Your task to perform on an android device: What's a good restaurant in Boston? Image 0: 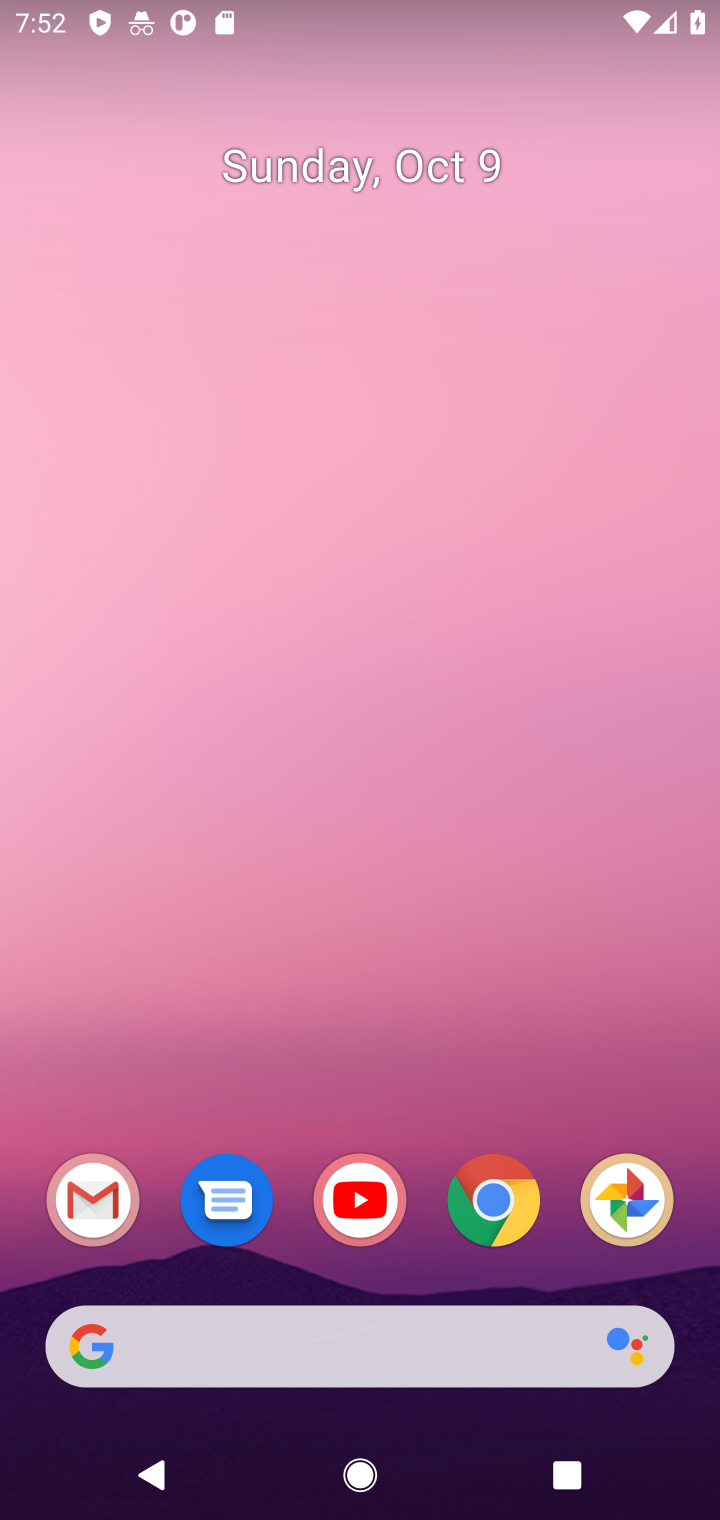
Step 0: click (486, 1216)
Your task to perform on an android device: What's a good restaurant in Boston? Image 1: 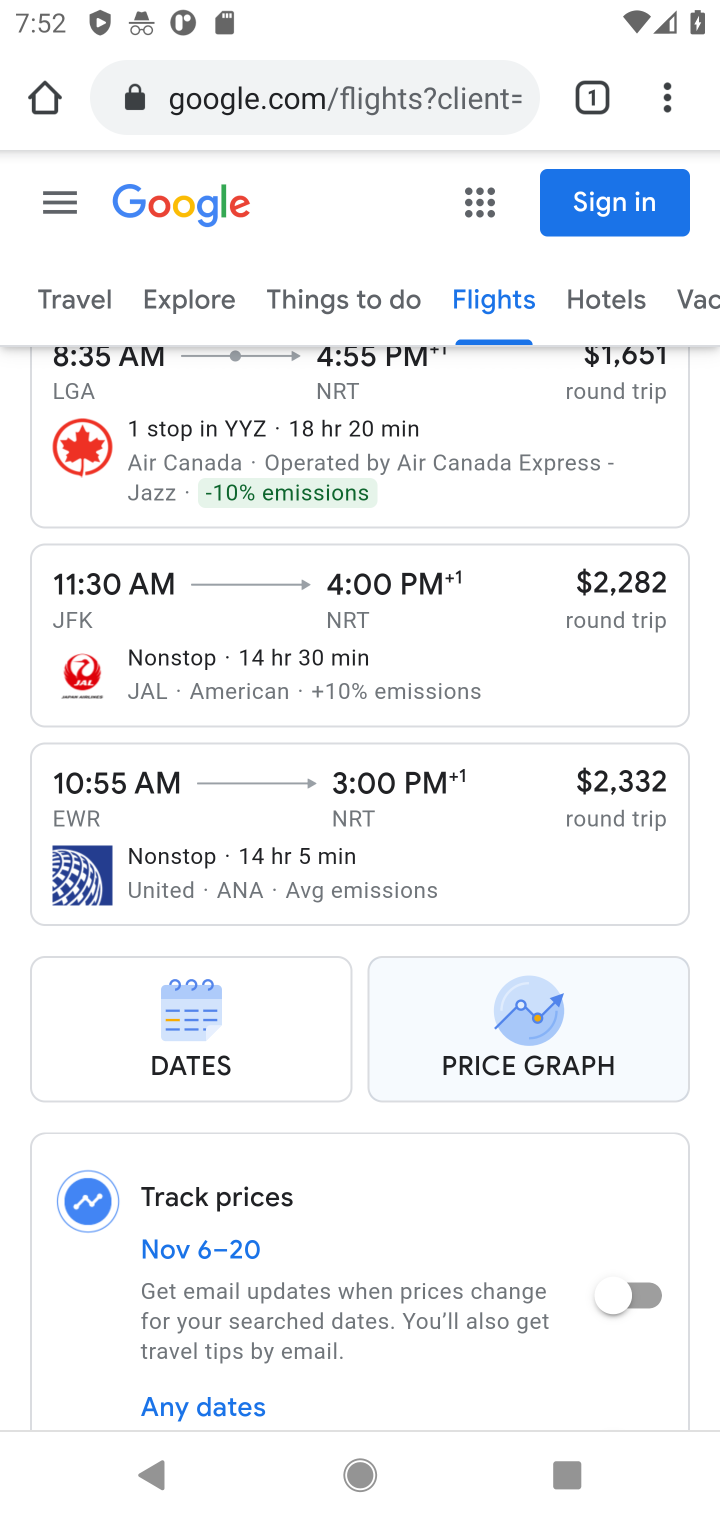
Step 1: click (373, 98)
Your task to perform on an android device: What's a good restaurant in Boston? Image 2: 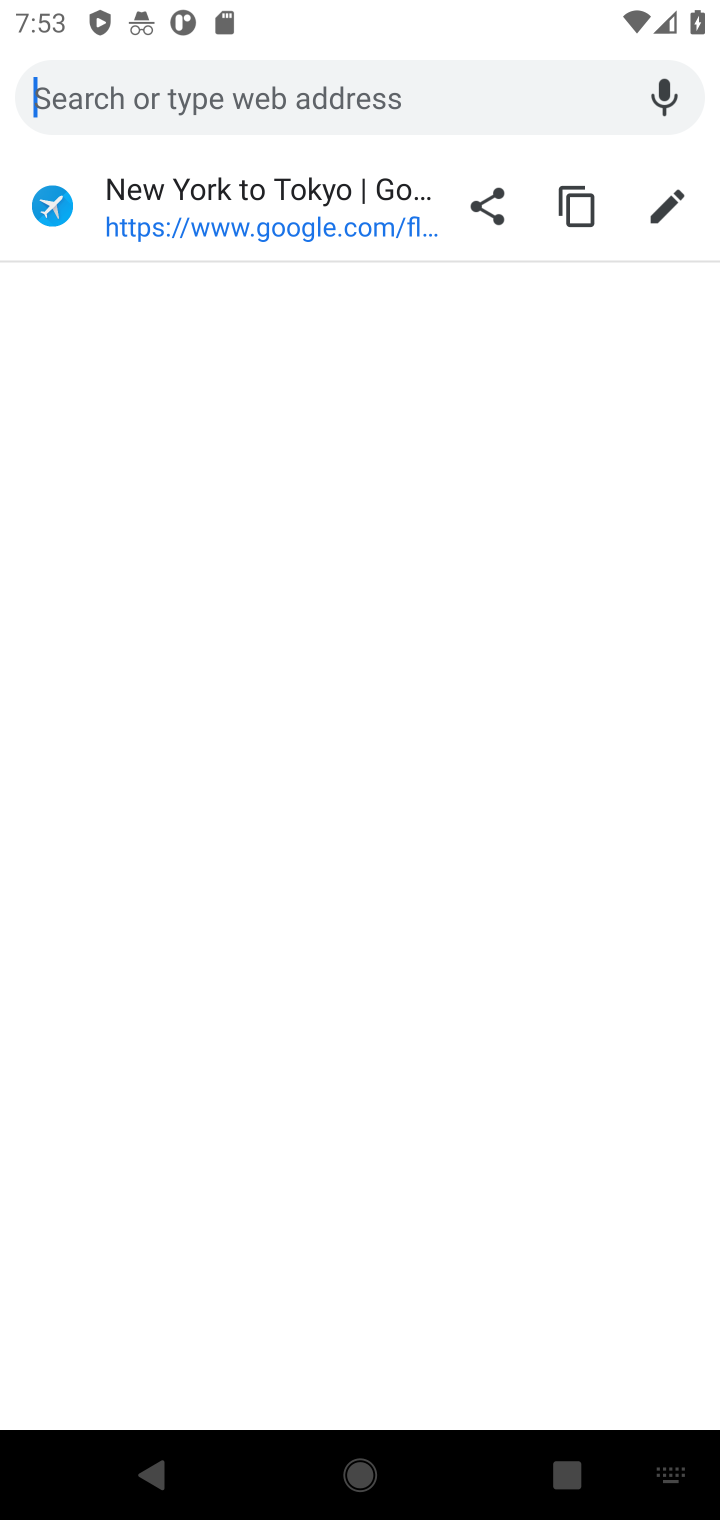
Step 2: type "good restaurant in Boston"
Your task to perform on an android device: What's a good restaurant in Boston? Image 3: 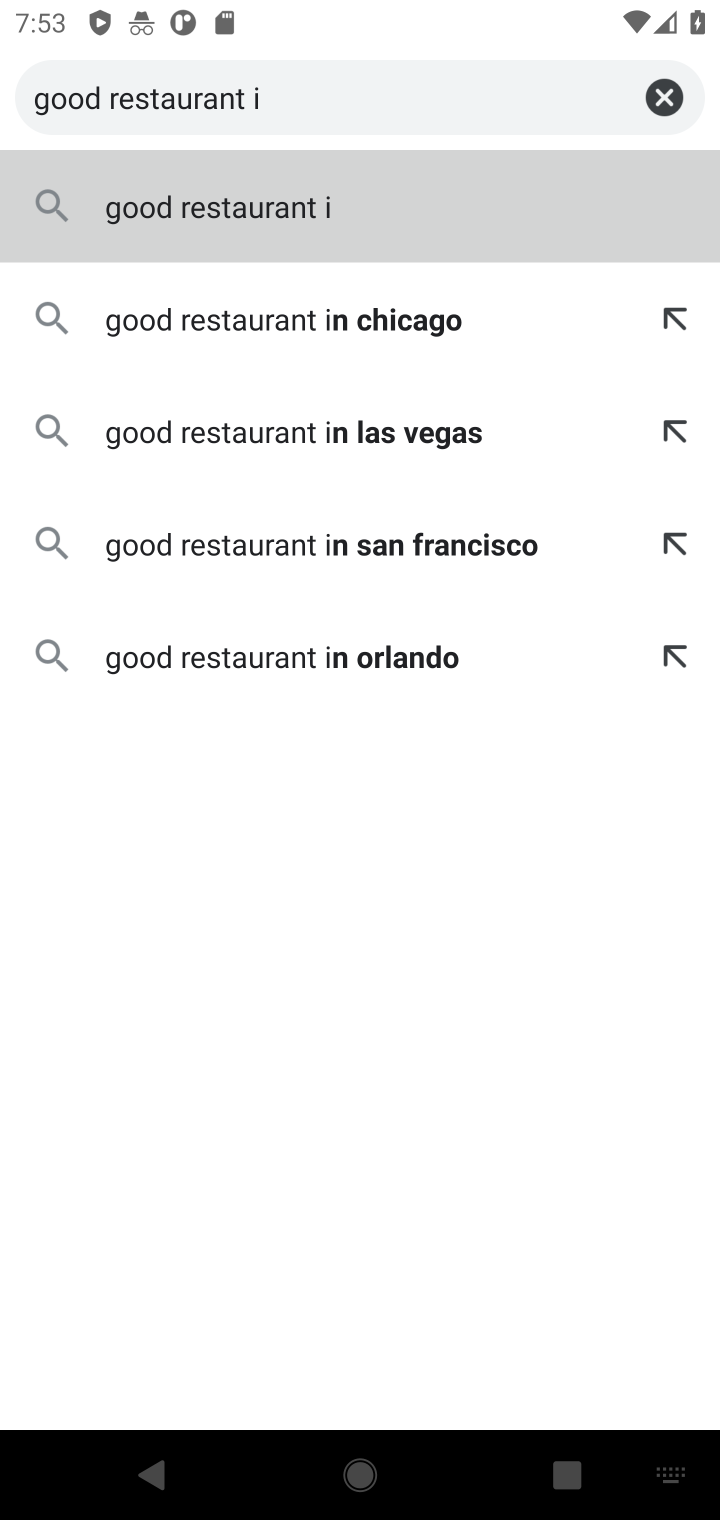
Step 3: type "n boston"
Your task to perform on an android device: What's a good restaurant in Boston? Image 4: 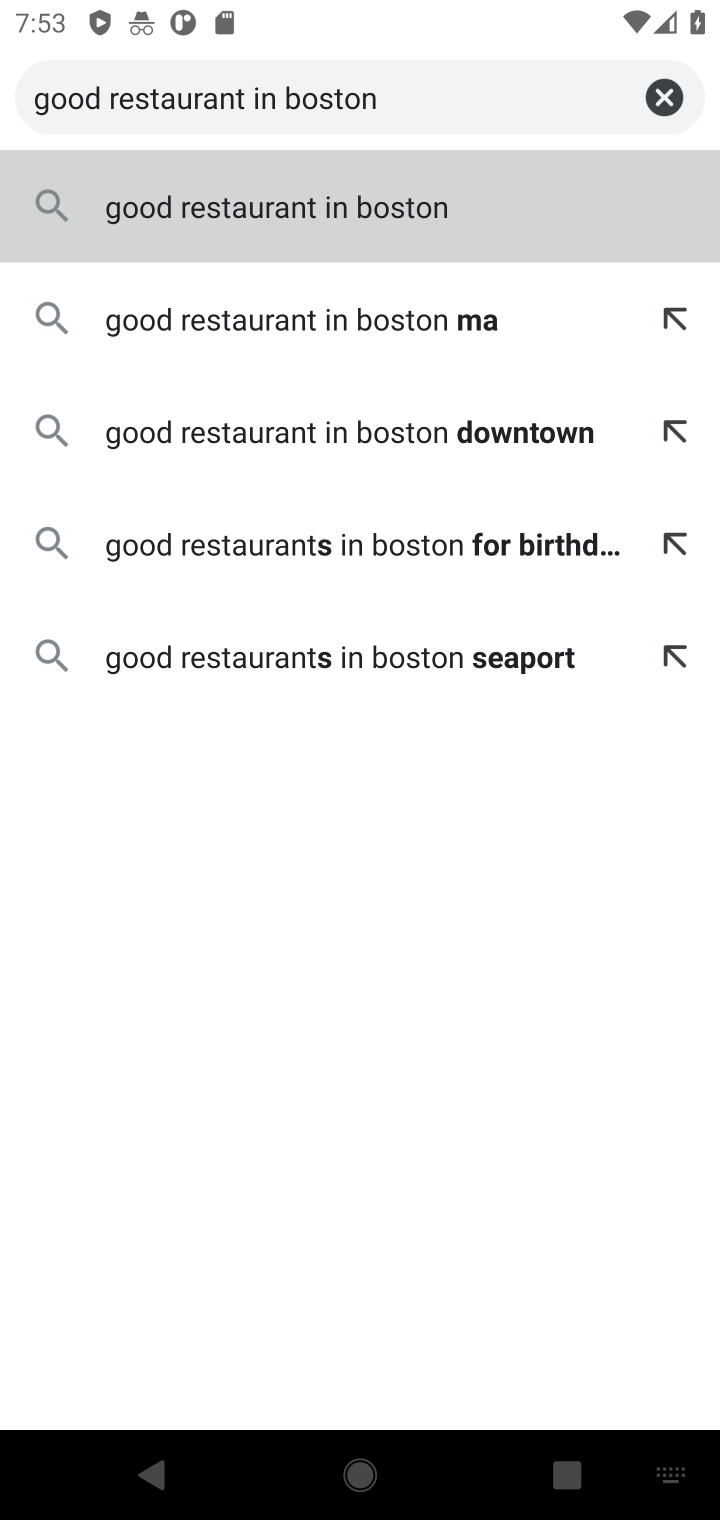
Step 4: click (420, 214)
Your task to perform on an android device: What's a good restaurant in Boston? Image 5: 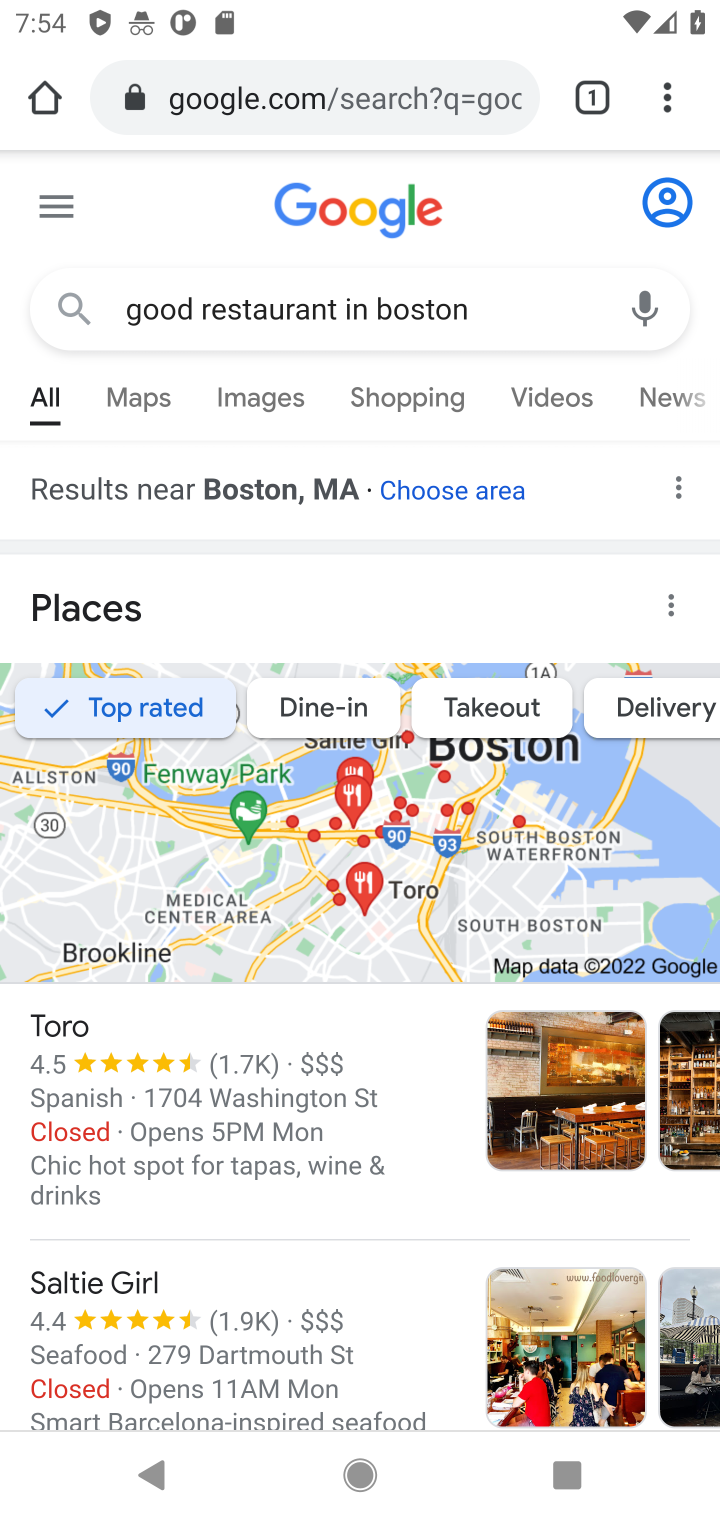
Step 5: drag from (396, 1149) to (341, 743)
Your task to perform on an android device: What's a good restaurant in Boston? Image 6: 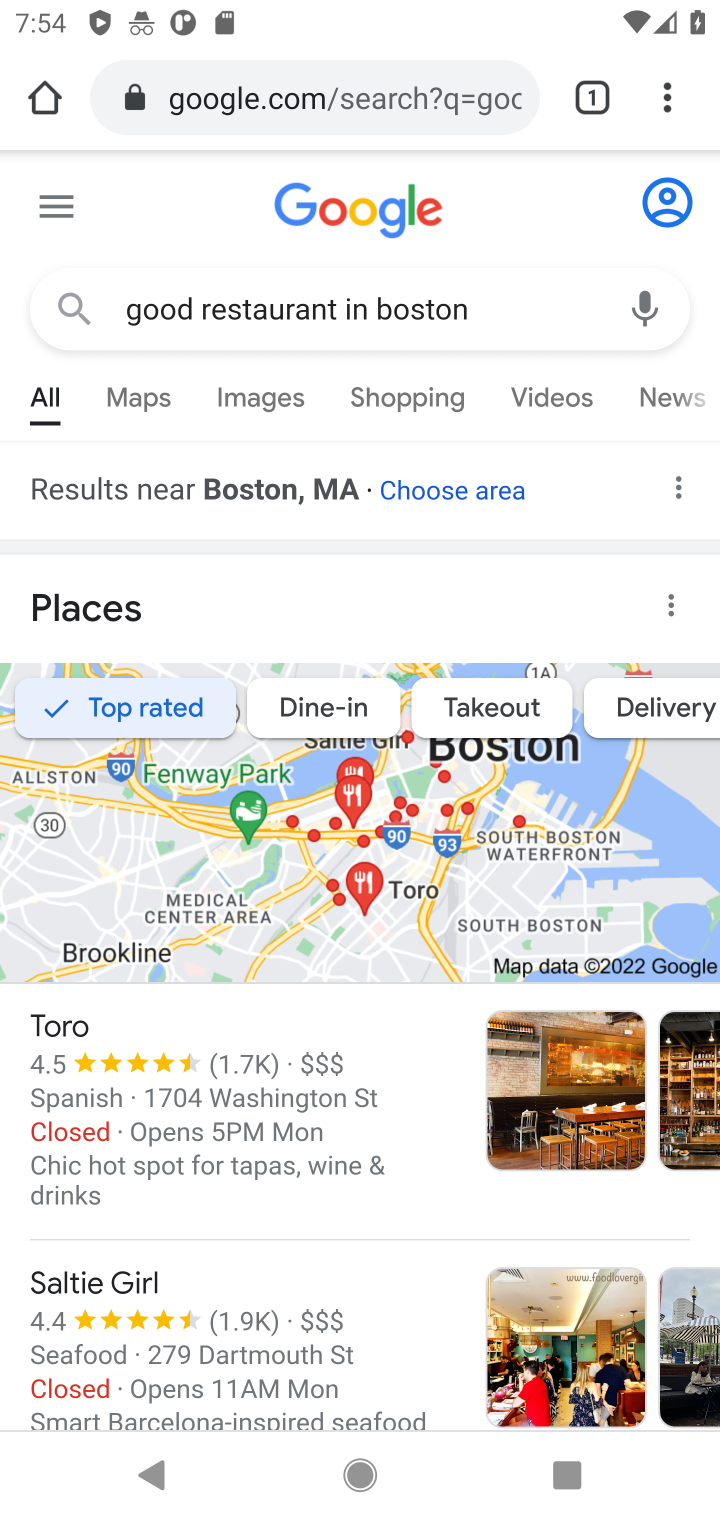
Step 6: drag from (397, 1328) to (388, 735)
Your task to perform on an android device: What's a good restaurant in Boston? Image 7: 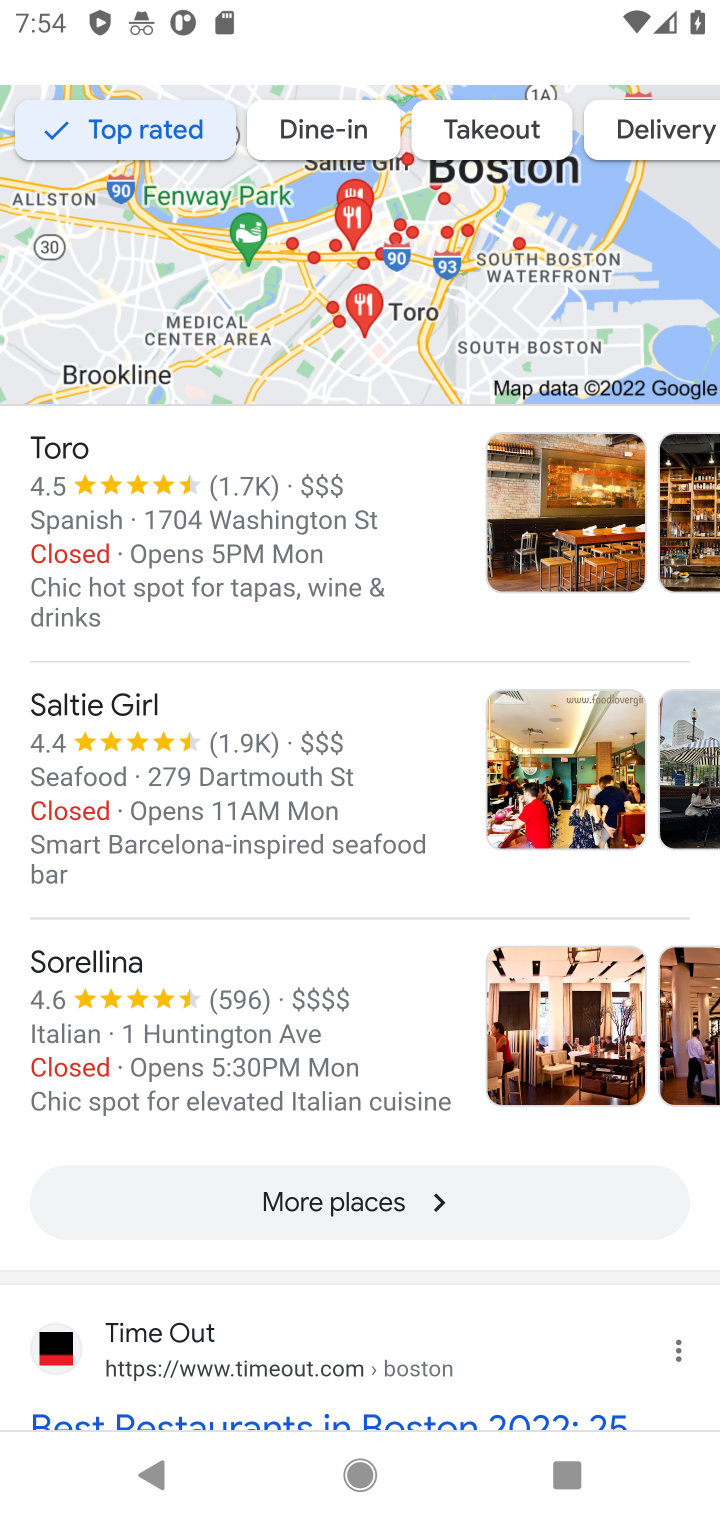
Step 7: click (265, 1198)
Your task to perform on an android device: What's a good restaurant in Boston? Image 8: 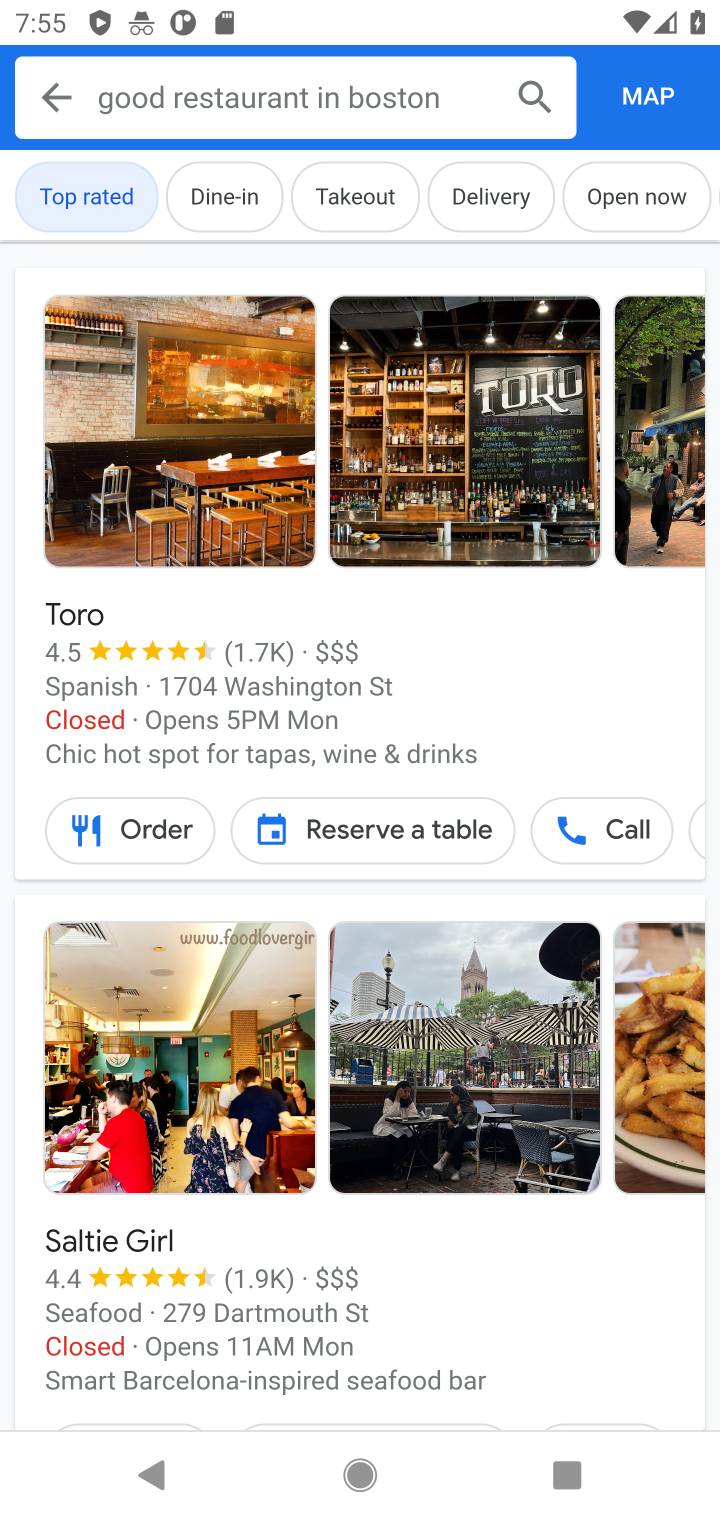
Step 8: task complete